Your task to perform on an android device: turn off wifi Image 0: 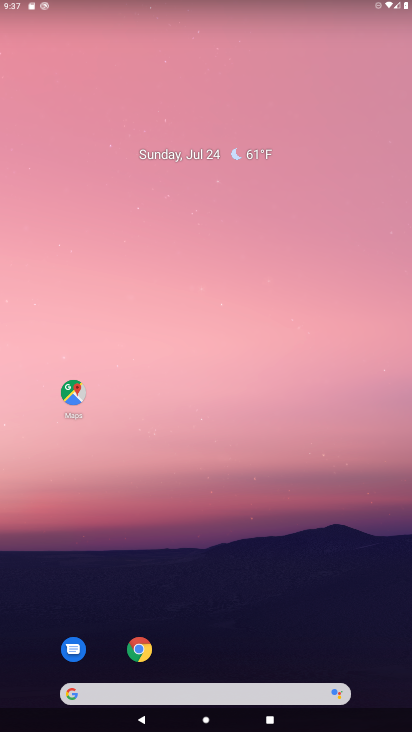
Step 0: drag from (299, 596) to (209, 54)
Your task to perform on an android device: turn off wifi Image 1: 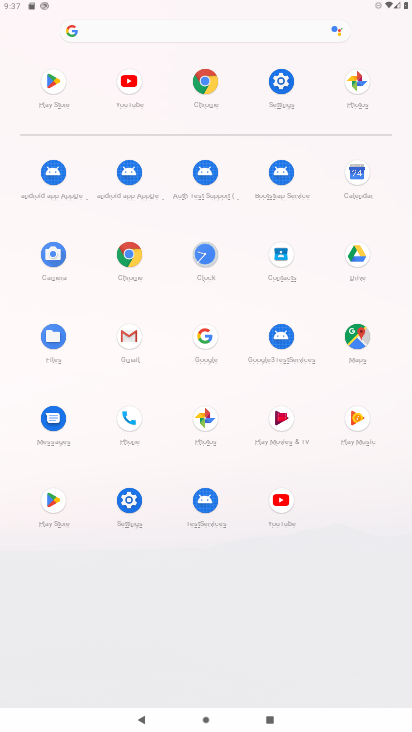
Step 1: click (275, 84)
Your task to perform on an android device: turn off wifi Image 2: 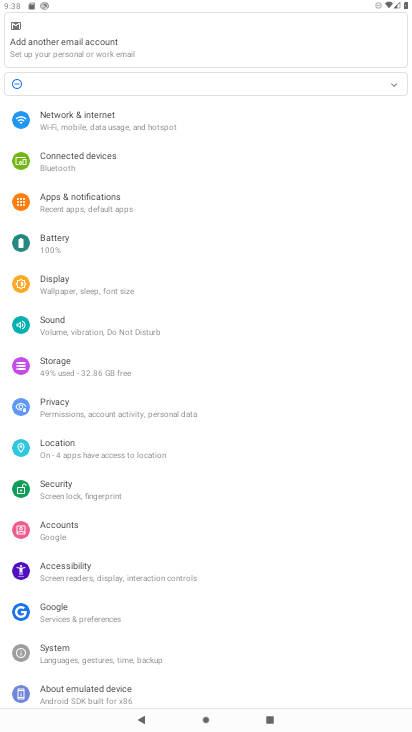
Step 2: click (86, 122)
Your task to perform on an android device: turn off wifi Image 3: 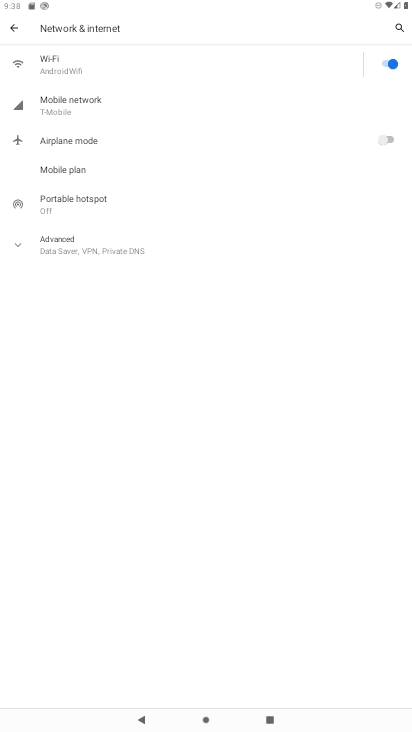
Step 3: click (383, 57)
Your task to perform on an android device: turn off wifi Image 4: 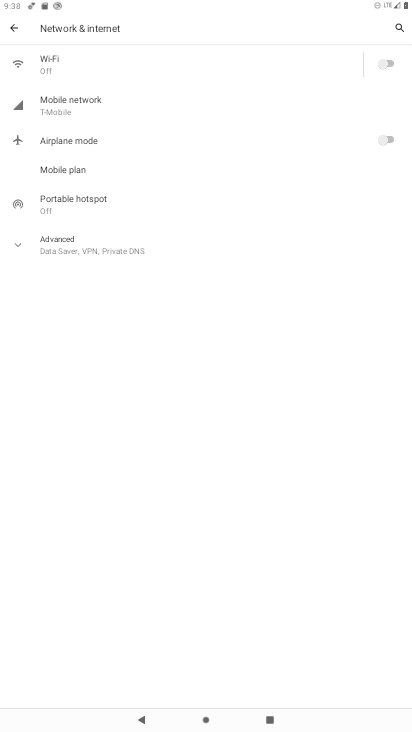
Step 4: task complete